Your task to perform on an android device: Look up the best selling books on Goodreads. Image 0: 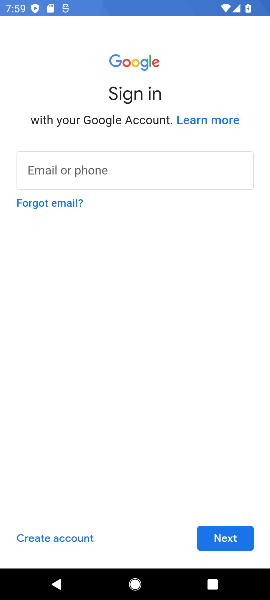
Step 0: press home button
Your task to perform on an android device: Look up the best selling books on Goodreads. Image 1: 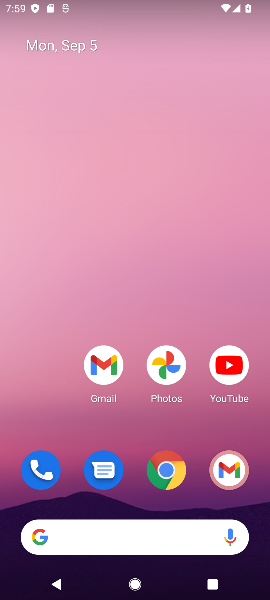
Step 1: click (102, 529)
Your task to perform on an android device: Look up the best selling books on Goodreads. Image 2: 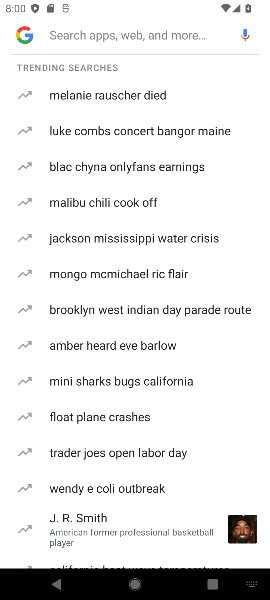
Step 2: type "goodreads"
Your task to perform on an android device: Look up the best selling books on Goodreads. Image 3: 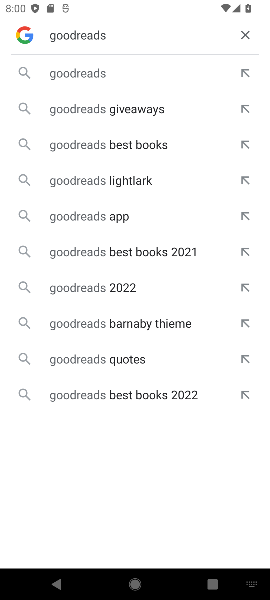
Step 3: click (93, 71)
Your task to perform on an android device: Look up the best selling books on Goodreads. Image 4: 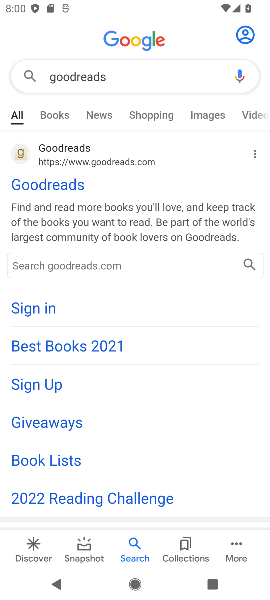
Step 4: click (69, 183)
Your task to perform on an android device: Look up the best selling books on Goodreads. Image 5: 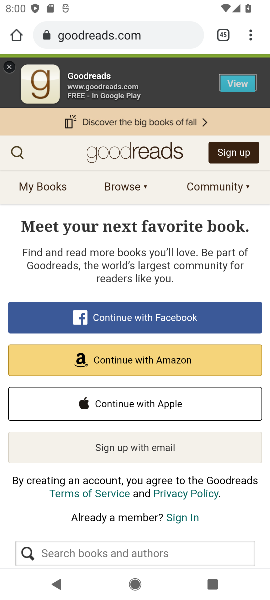
Step 5: click (17, 151)
Your task to perform on an android device: Look up the best selling books on Goodreads. Image 6: 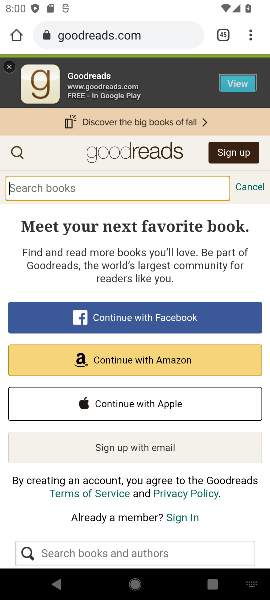
Step 6: type "best selling books"
Your task to perform on an android device: Look up the best selling books on Goodreads. Image 7: 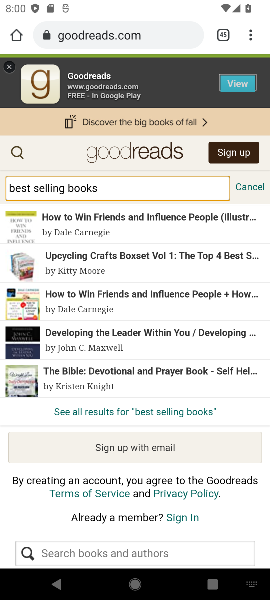
Step 7: click (133, 406)
Your task to perform on an android device: Look up the best selling books on Goodreads. Image 8: 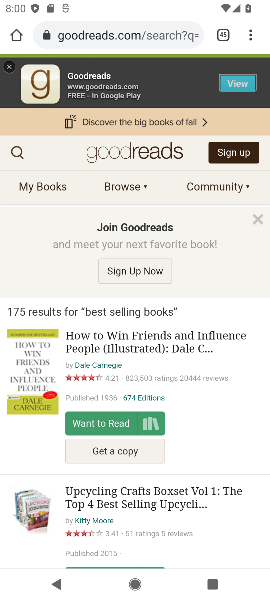
Step 8: task complete